Your task to perform on an android device: toggle data saver in the chrome app Image 0: 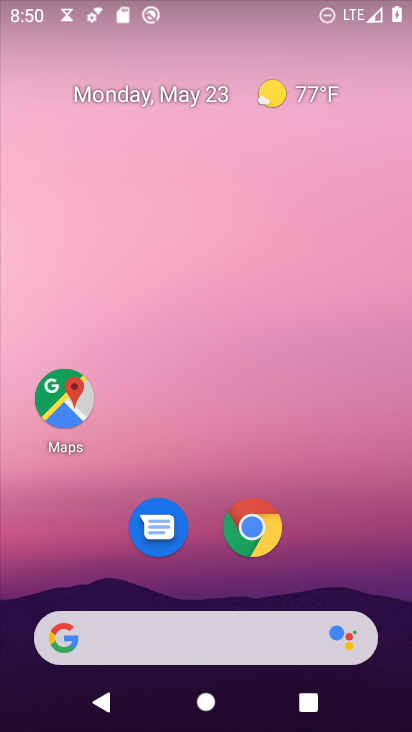
Step 0: press home button
Your task to perform on an android device: toggle data saver in the chrome app Image 1: 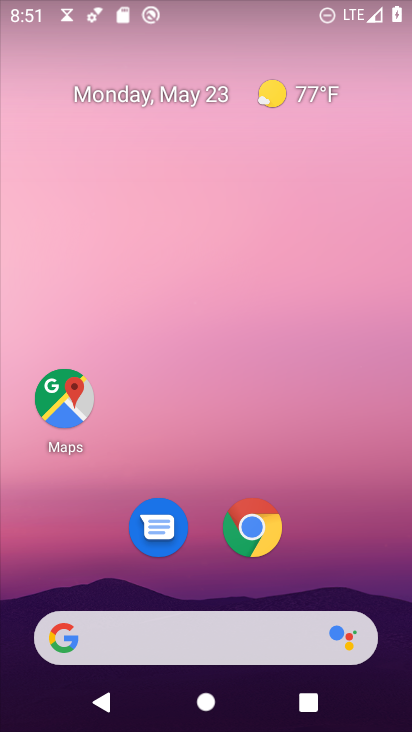
Step 1: drag from (232, 659) to (208, 183)
Your task to perform on an android device: toggle data saver in the chrome app Image 2: 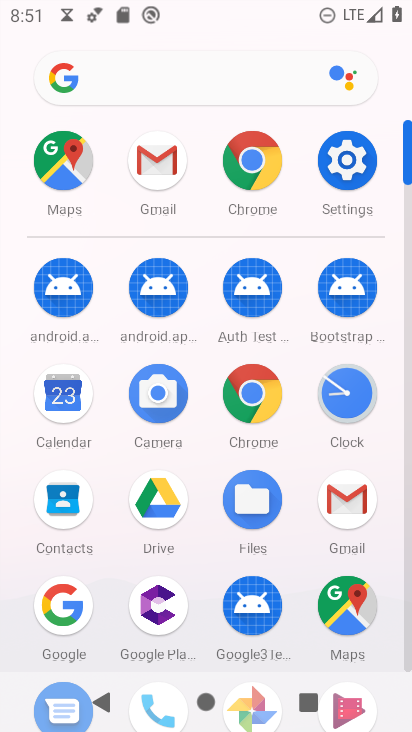
Step 2: click (239, 140)
Your task to perform on an android device: toggle data saver in the chrome app Image 3: 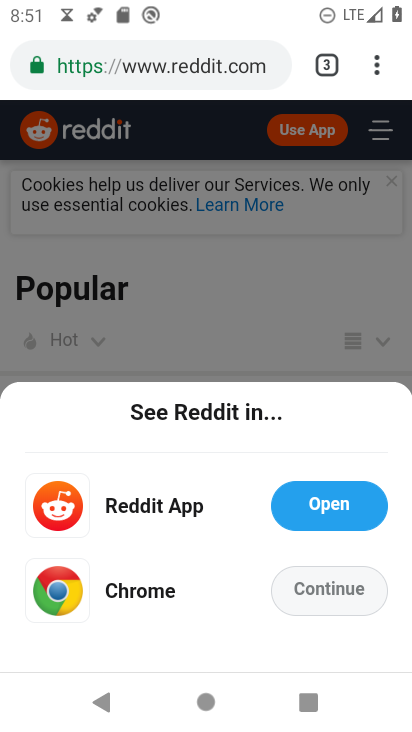
Step 3: click (371, 79)
Your task to perform on an android device: toggle data saver in the chrome app Image 4: 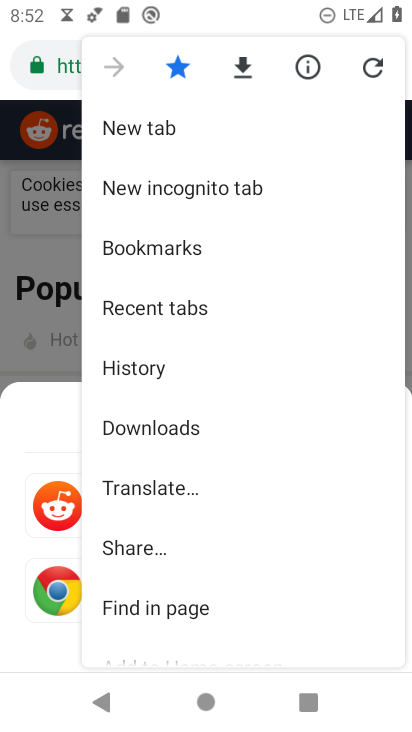
Step 4: drag from (189, 580) to (215, 256)
Your task to perform on an android device: toggle data saver in the chrome app Image 5: 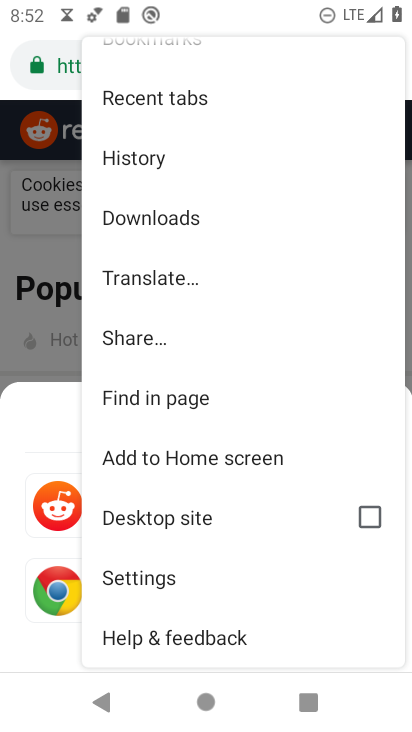
Step 5: click (144, 576)
Your task to perform on an android device: toggle data saver in the chrome app Image 6: 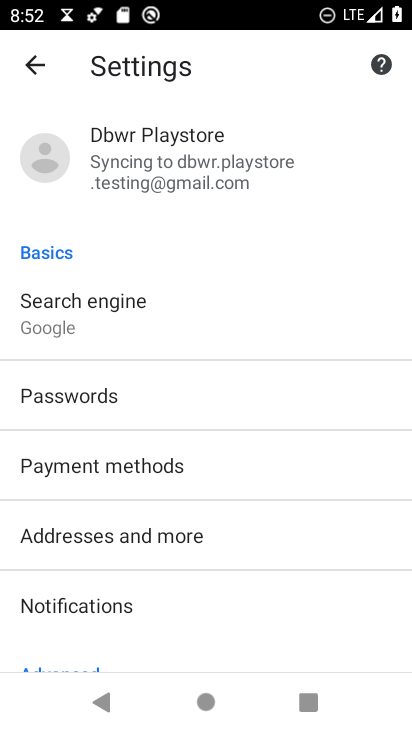
Step 6: click (234, 285)
Your task to perform on an android device: toggle data saver in the chrome app Image 7: 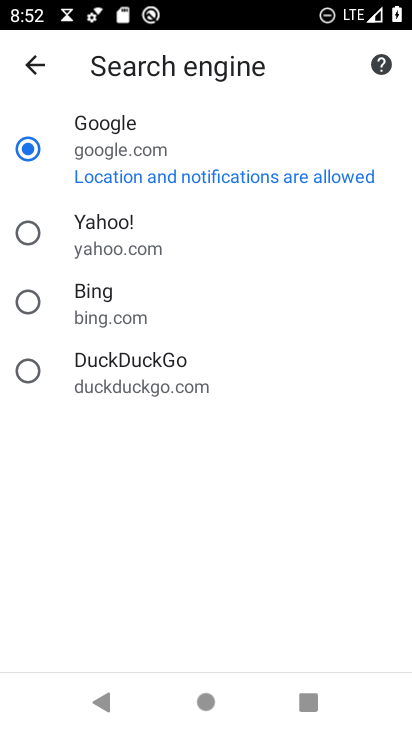
Step 7: press back button
Your task to perform on an android device: toggle data saver in the chrome app Image 8: 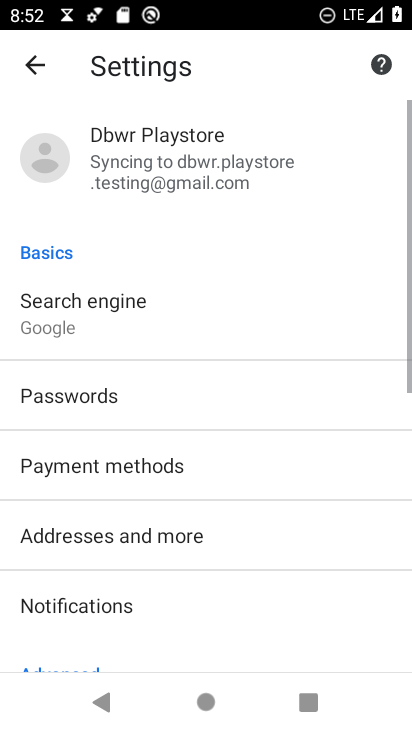
Step 8: drag from (177, 573) to (211, 184)
Your task to perform on an android device: toggle data saver in the chrome app Image 9: 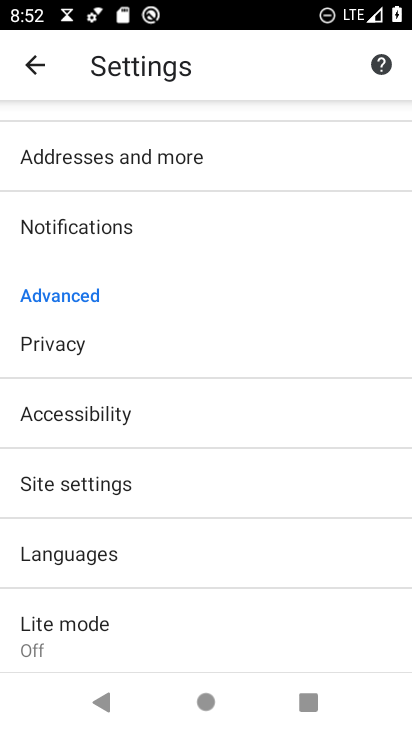
Step 9: click (106, 623)
Your task to perform on an android device: toggle data saver in the chrome app Image 10: 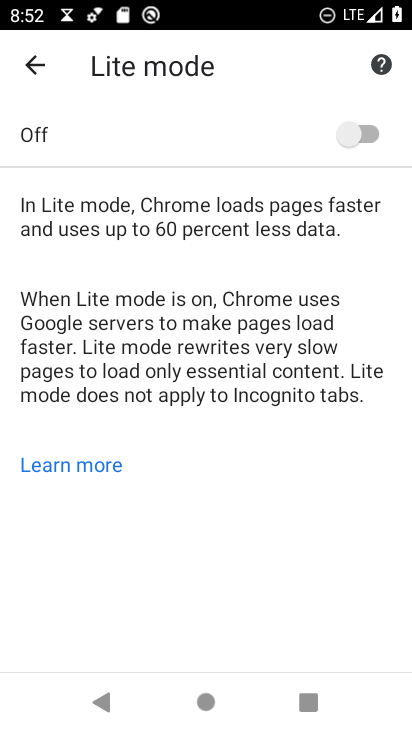
Step 10: task complete